Your task to perform on an android device: Open Youtube and go to the subscriptions tab Image 0: 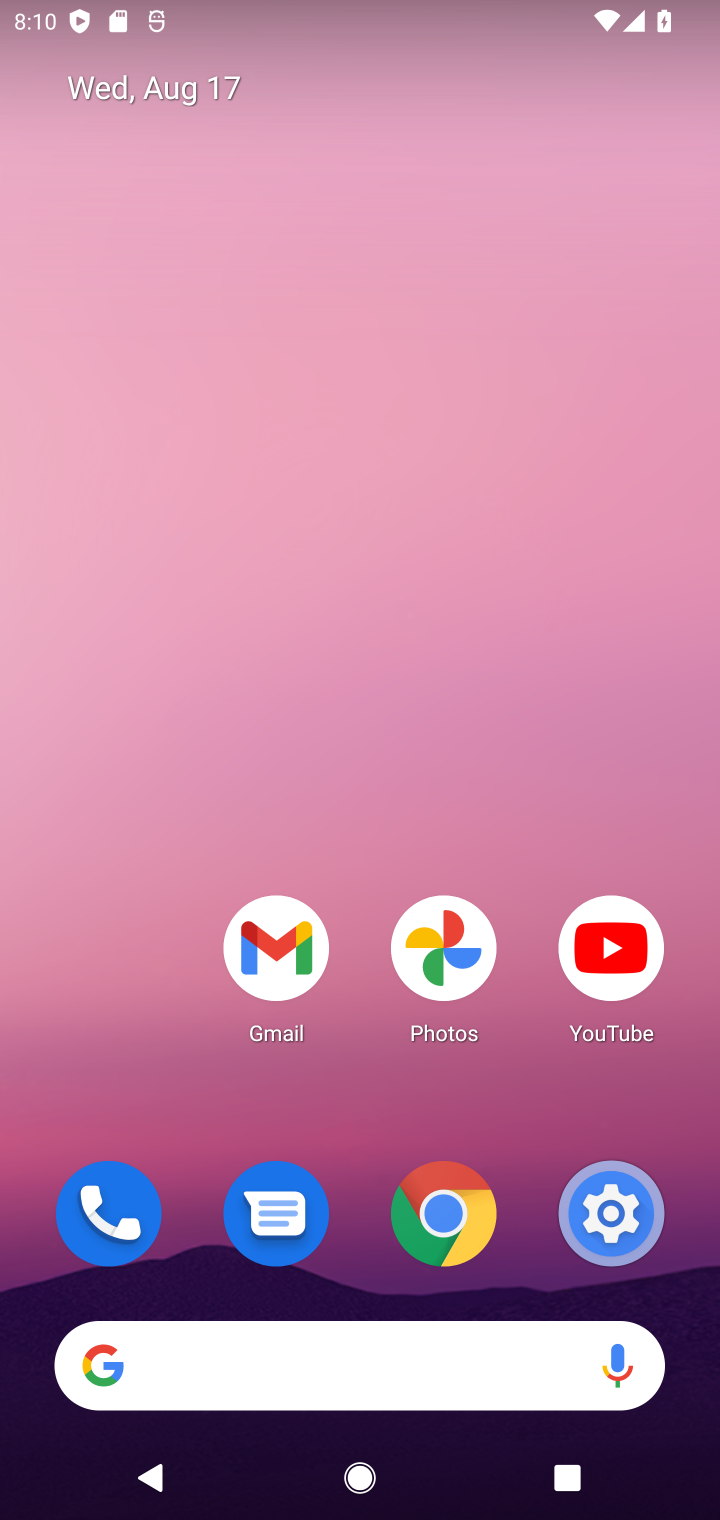
Step 0: click (599, 1002)
Your task to perform on an android device: Open Youtube and go to the subscriptions tab Image 1: 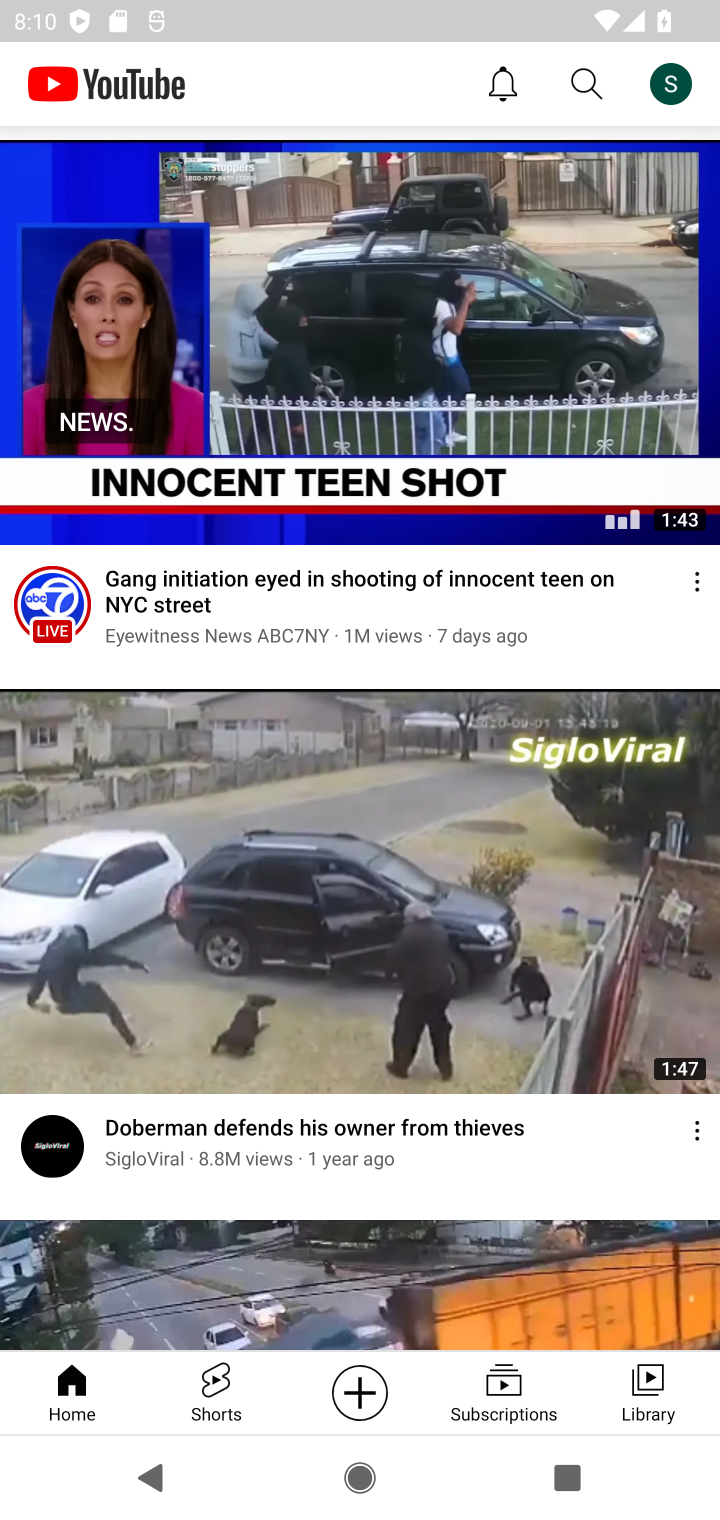
Step 1: click (491, 1374)
Your task to perform on an android device: Open Youtube and go to the subscriptions tab Image 2: 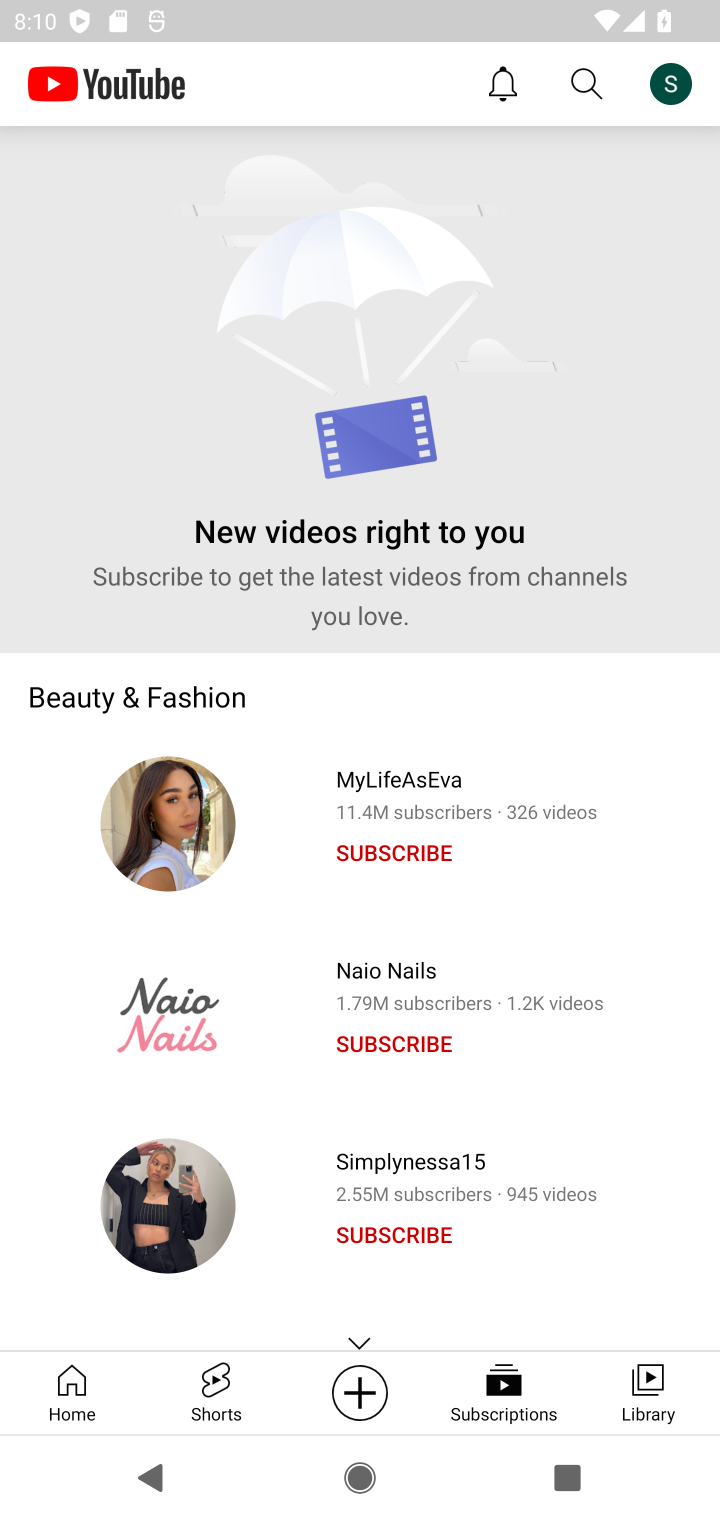
Step 2: task complete